Your task to perform on an android device: Open settings on Google Maps Image 0: 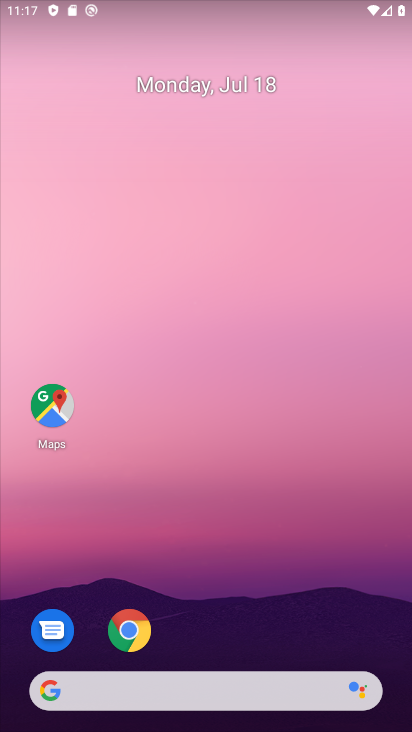
Step 0: click (55, 397)
Your task to perform on an android device: Open settings on Google Maps Image 1: 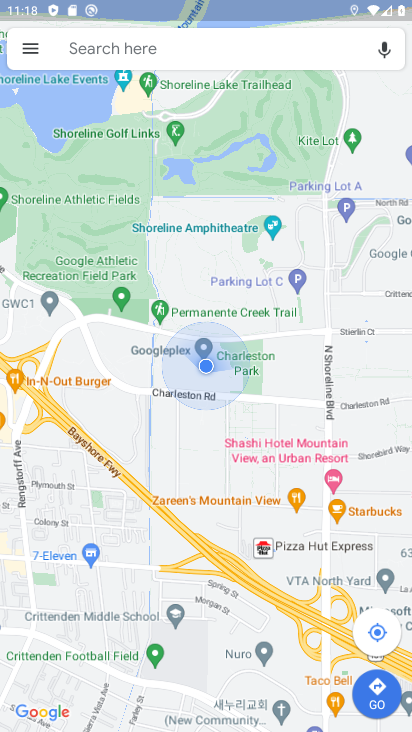
Step 1: click (21, 44)
Your task to perform on an android device: Open settings on Google Maps Image 2: 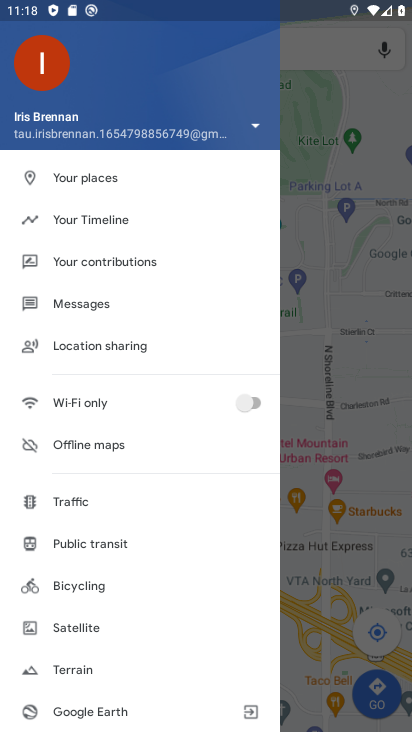
Step 2: drag from (71, 693) to (157, 66)
Your task to perform on an android device: Open settings on Google Maps Image 3: 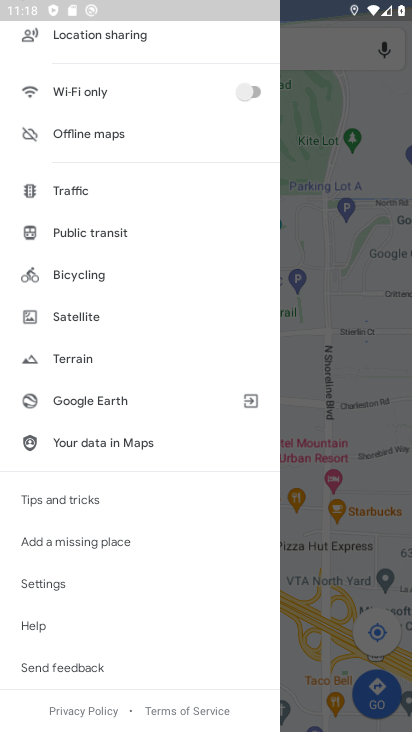
Step 3: click (56, 590)
Your task to perform on an android device: Open settings on Google Maps Image 4: 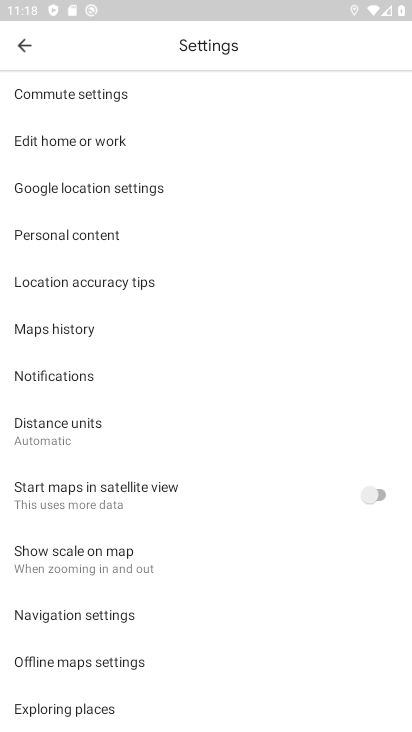
Step 4: task complete